Your task to perform on an android device: create a new album in the google photos Image 0: 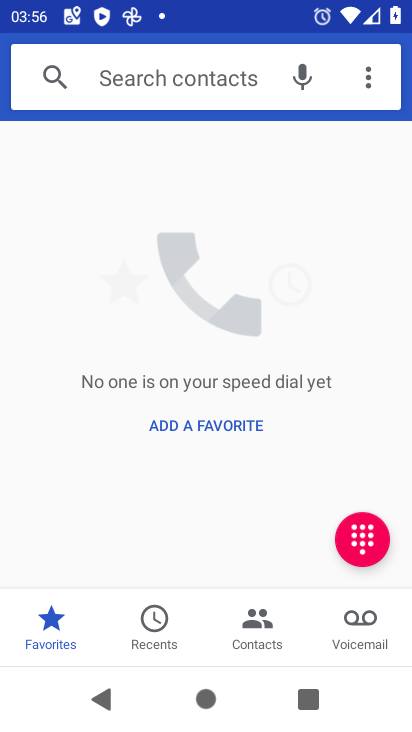
Step 0: press home button
Your task to perform on an android device: create a new album in the google photos Image 1: 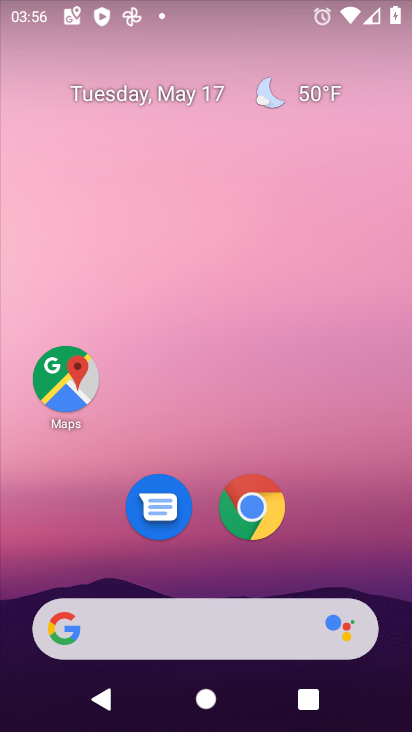
Step 1: drag from (351, 557) to (272, 10)
Your task to perform on an android device: create a new album in the google photos Image 2: 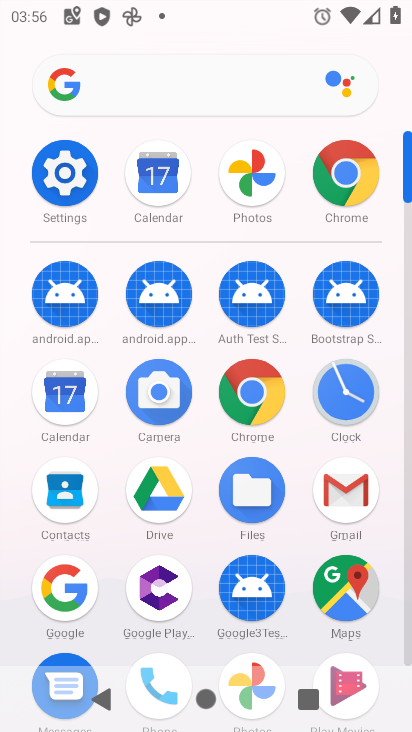
Step 2: click (252, 184)
Your task to perform on an android device: create a new album in the google photos Image 3: 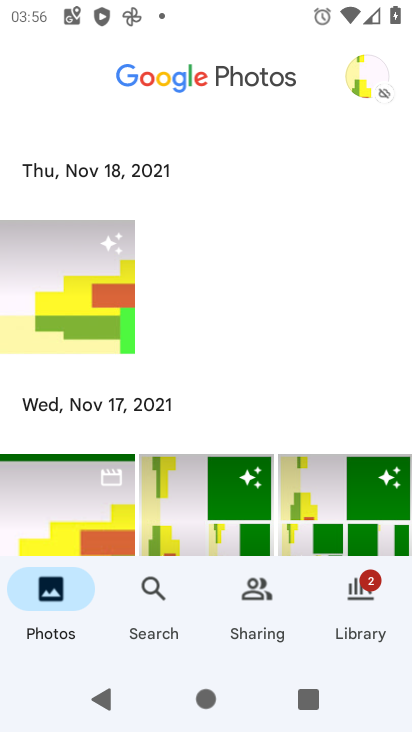
Step 3: click (366, 590)
Your task to perform on an android device: create a new album in the google photos Image 4: 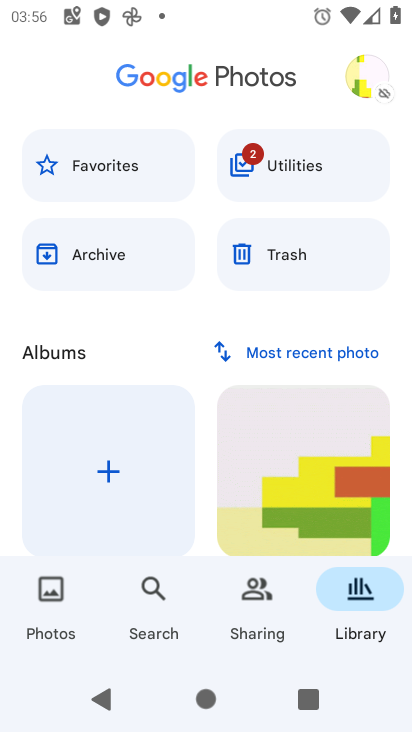
Step 4: click (262, 608)
Your task to perform on an android device: create a new album in the google photos Image 5: 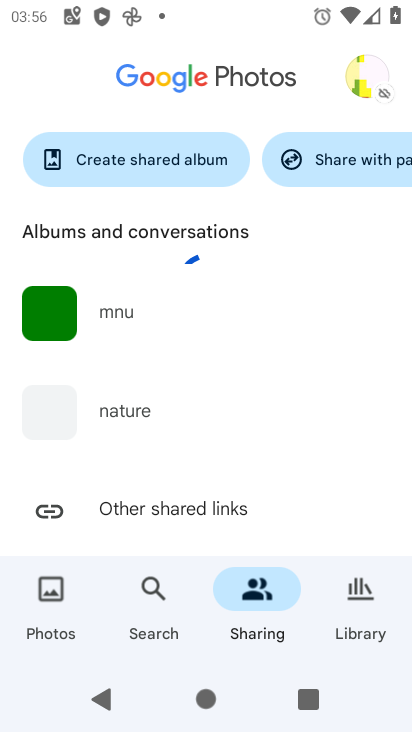
Step 5: click (346, 592)
Your task to perform on an android device: create a new album in the google photos Image 6: 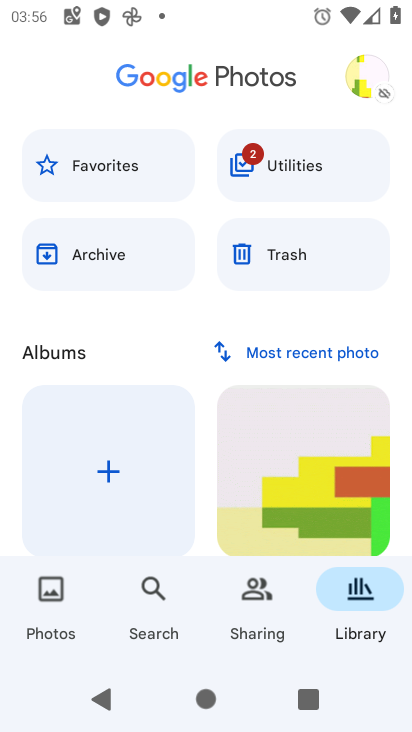
Step 6: click (98, 478)
Your task to perform on an android device: create a new album in the google photos Image 7: 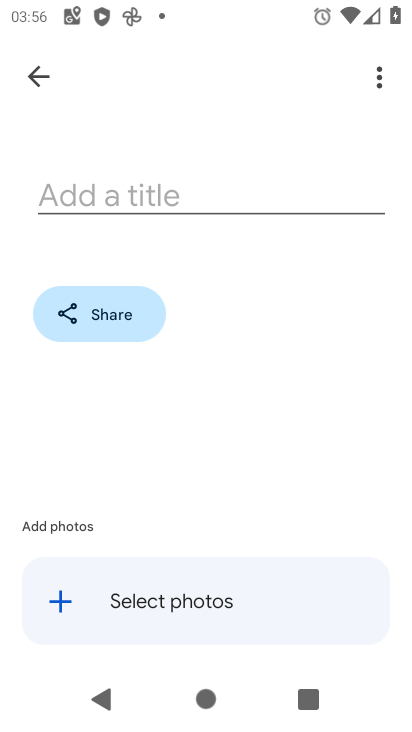
Step 7: click (183, 198)
Your task to perform on an android device: create a new album in the google photos Image 8: 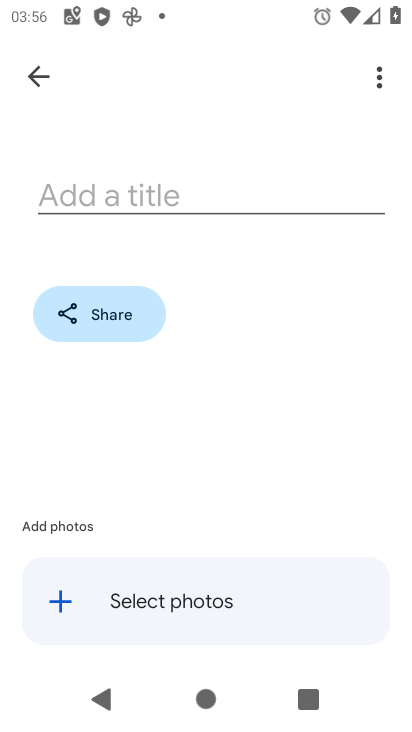
Step 8: type "gfsdfg"
Your task to perform on an android device: create a new album in the google photos Image 9: 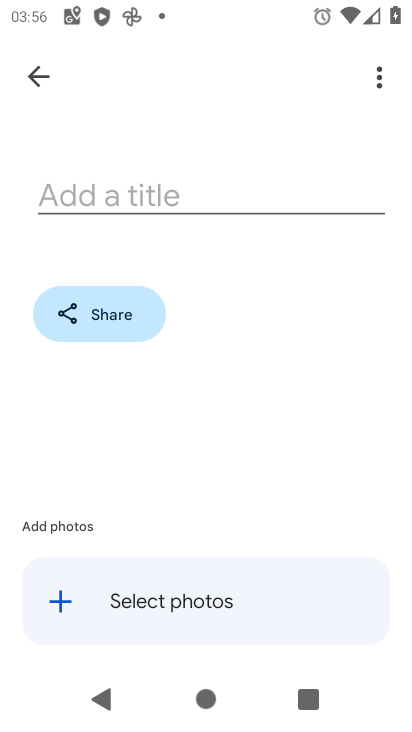
Step 9: click (101, 602)
Your task to perform on an android device: create a new album in the google photos Image 10: 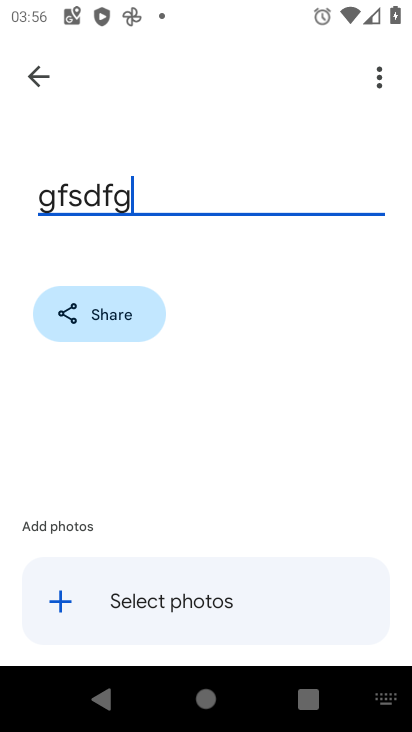
Step 10: type ""
Your task to perform on an android device: create a new album in the google photos Image 11: 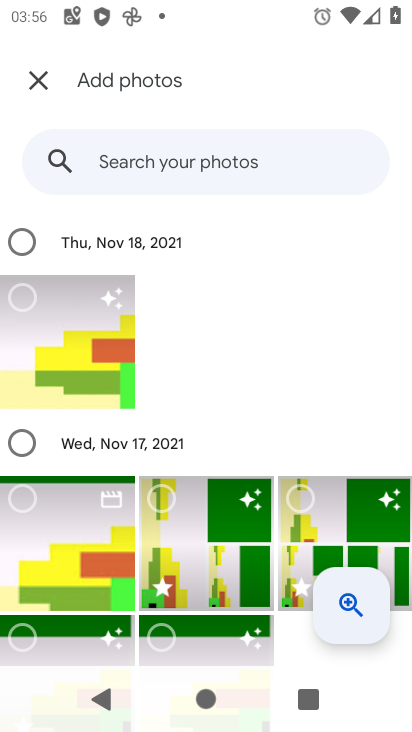
Step 11: click (78, 344)
Your task to perform on an android device: create a new album in the google photos Image 12: 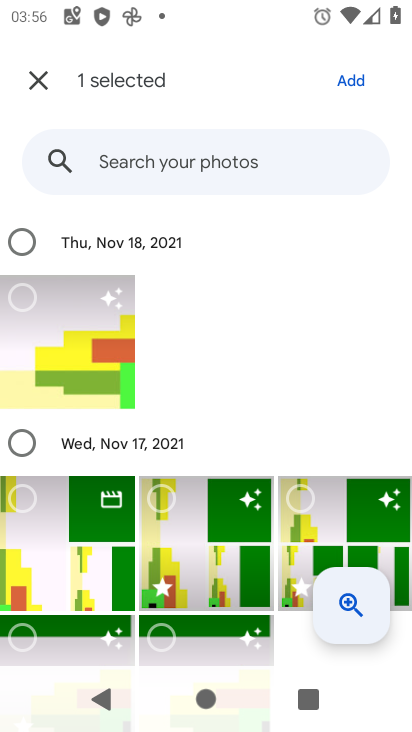
Step 12: click (351, 79)
Your task to perform on an android device: create a new album in the google photos Image 13: 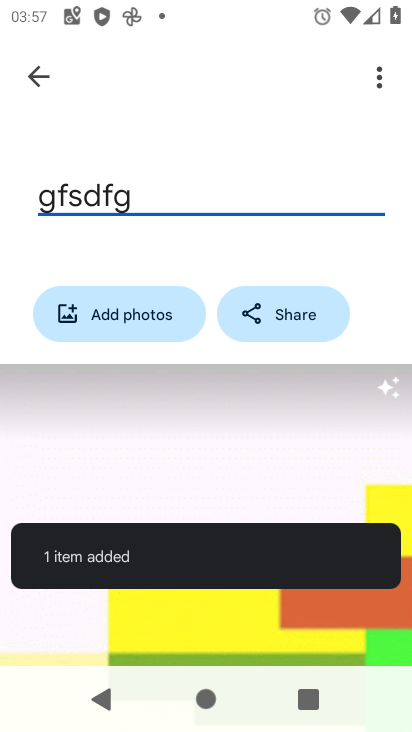
Step 13: task complete